Your task to perform on an android device: Open calendar and show me the third week of next month Image 0: 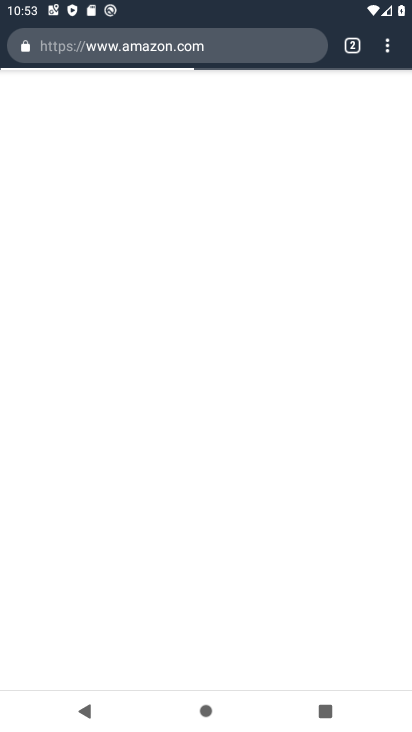
Step 0: press home button
Your task to perform on an android device: Open calendar and show me the third week of next month Image 1: 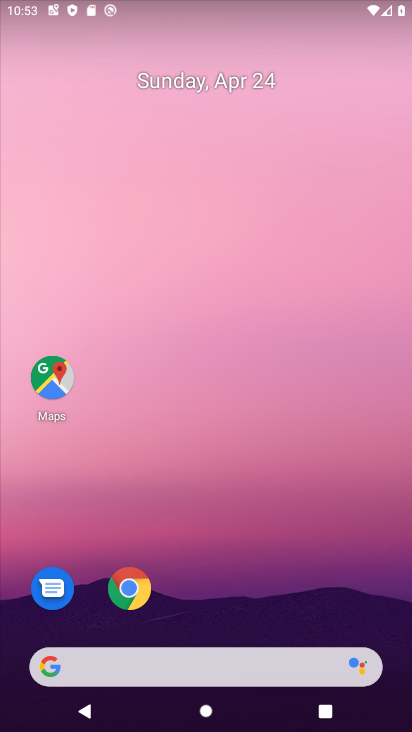
Step 1: drag from (297, 602) to (327, 80)
Your task to perform on an android device: Open calendar and show me the third week of next month Image 2: 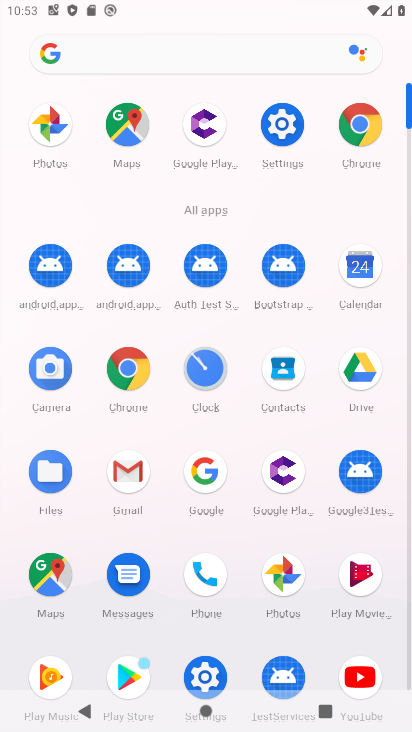
Step 2: click (365, 275)
Your task to perform on an android device: Open calendar and show me the third week of next month Image 3: 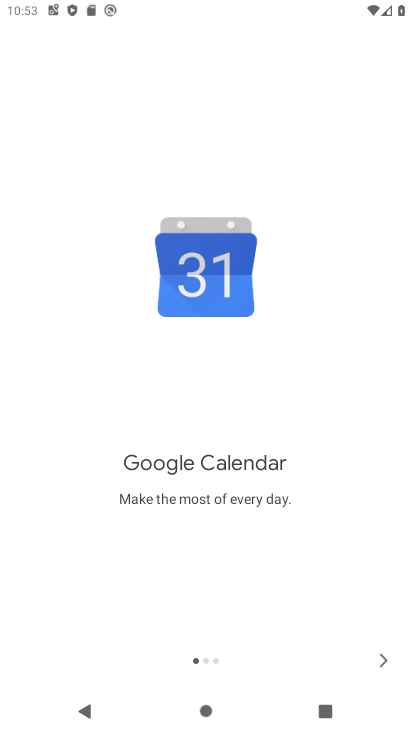
Step 3: click (388, 654)
Your task to perform on an android device: Open calendar and show me the third week of next month Image 4: 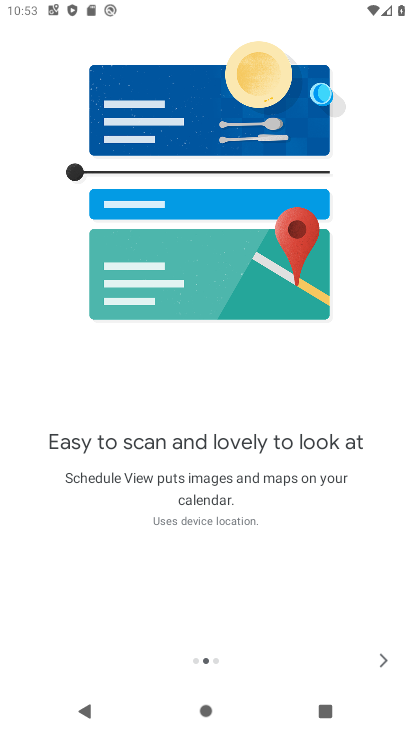
Step 4: click (388, 654)
Your task to perform on an android device: Open calendar and show me the third week of next month Image 5: 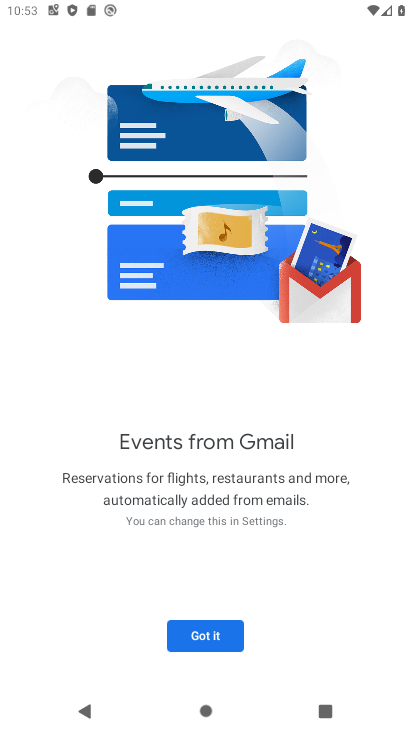
Step 5: click (208, 642)
Your task to perform on an android device: Open calendar and show me the third week of next month Image 6: 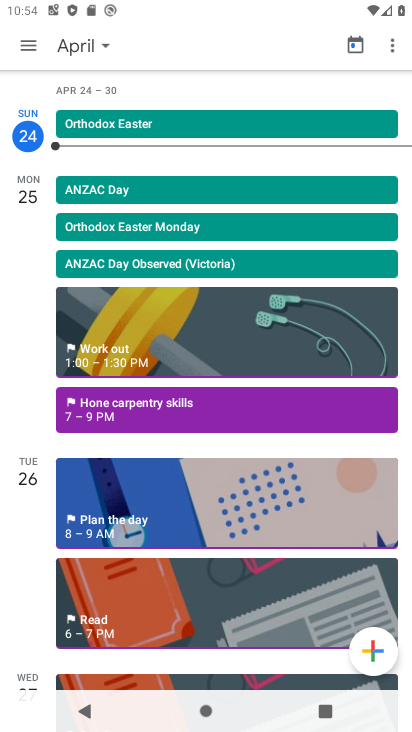
Step 6: click (90, 47)
Your task to perform on an android device: Open calendar and show me the third week of next month Image 7: 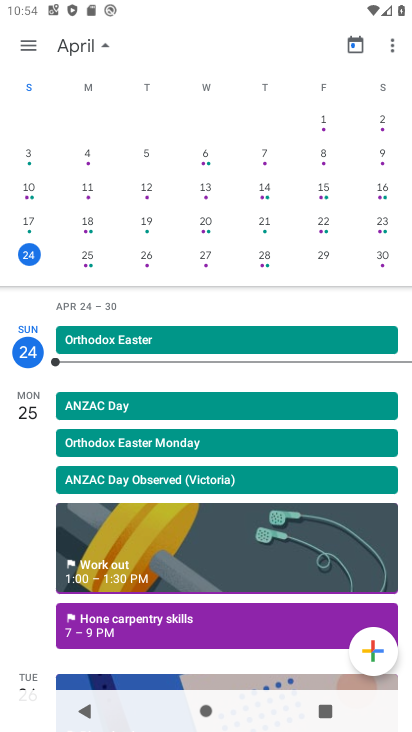
Step 7: click (92, 42)
Your task to perform on an android device: Open calendar and show me the third week of next month Image 8: 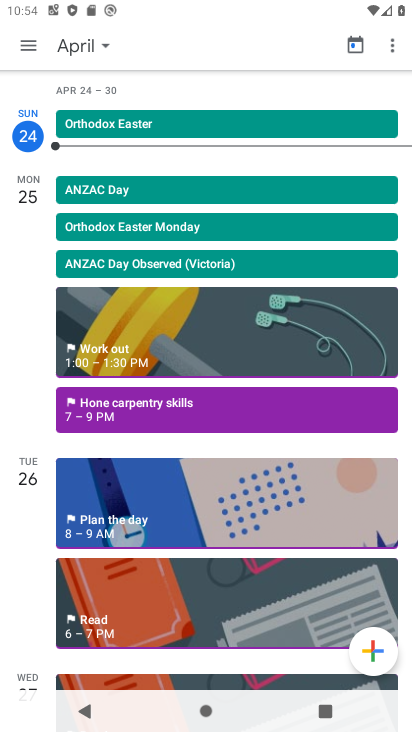
Step 8: click (101, 46)
Your task to perform on an android device: Open calendar and show me the third week of next month Image 9: 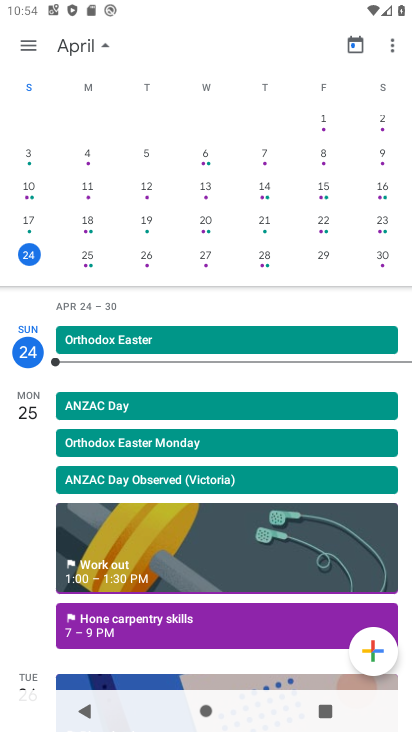
Step 9: drag from (338, 216) to (0, 171)
Your task to perform on an android device: Open calendar and show me the third week of next month Image 10: 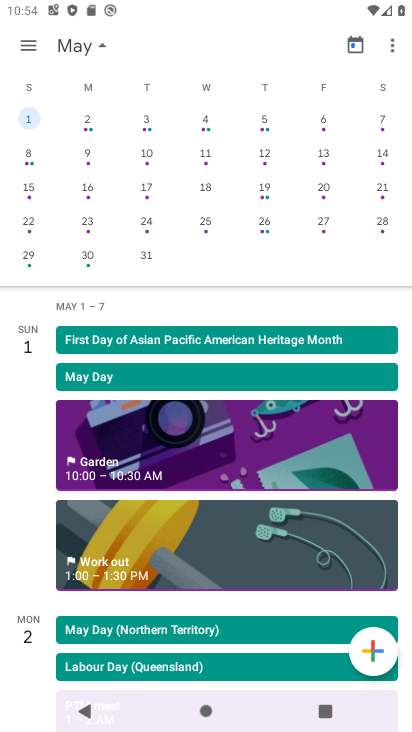
Step 10: click (98, 45)
Your task to perform on an android device: Open calendar and show me the third week of next month Image 11: 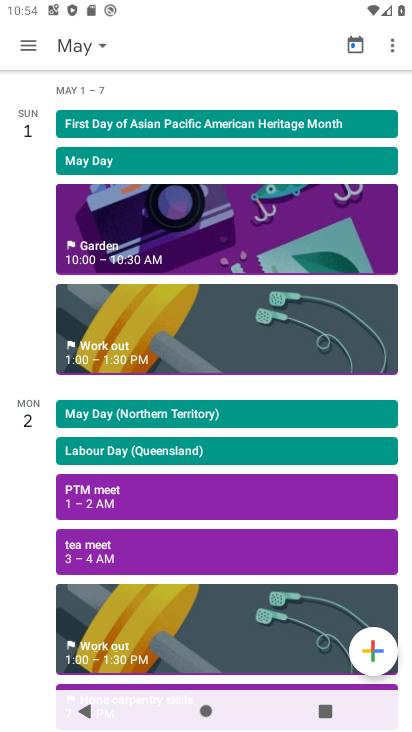
Step 11: click (83, 46)
Your task to perform on an android device: Open calendar and show me the third week of next month Image 12: 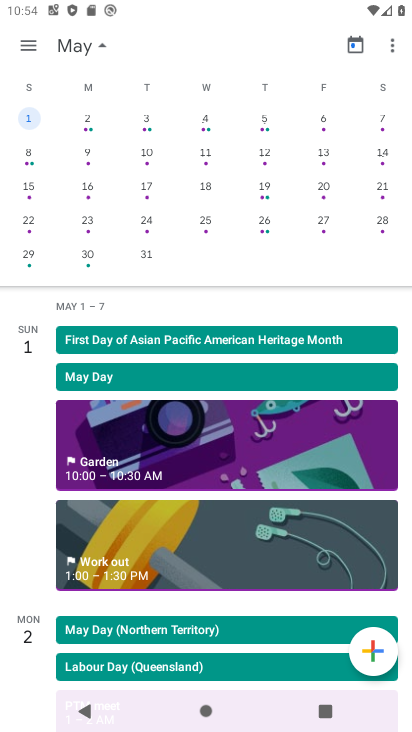
Step 12: click (17, 188)
Your task to perform on an android device: Open calendar and show me the third week of next month Image 13: 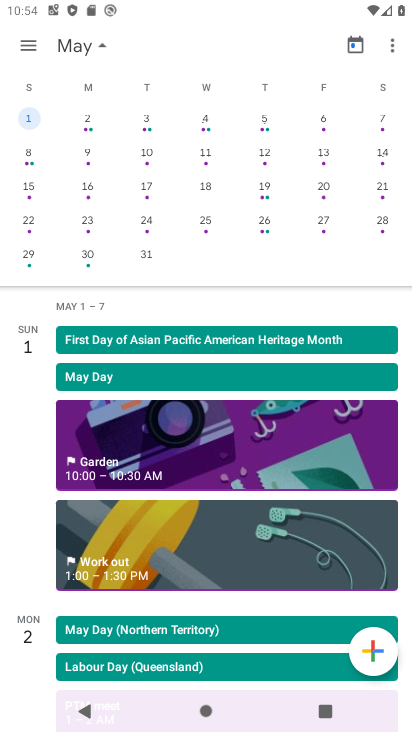
Step 13: click (34, 187)
Your task to perform on an android device: Open calendar and show me the third week of next month Image 14: 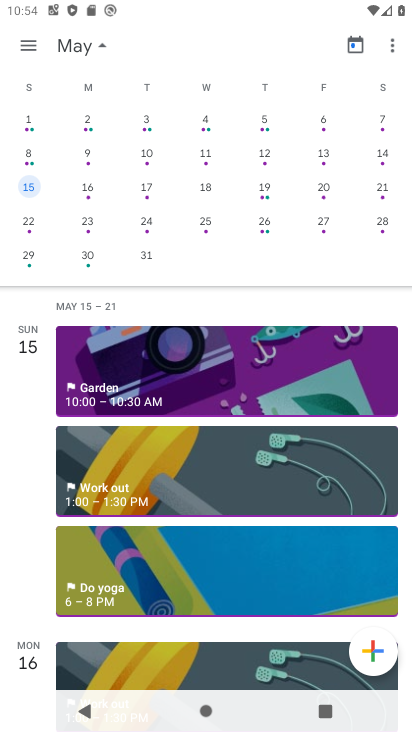
Step 14: click (35, 42)
Your task to perform on an android device: Open calendar and show me the third week of next month Image 15: 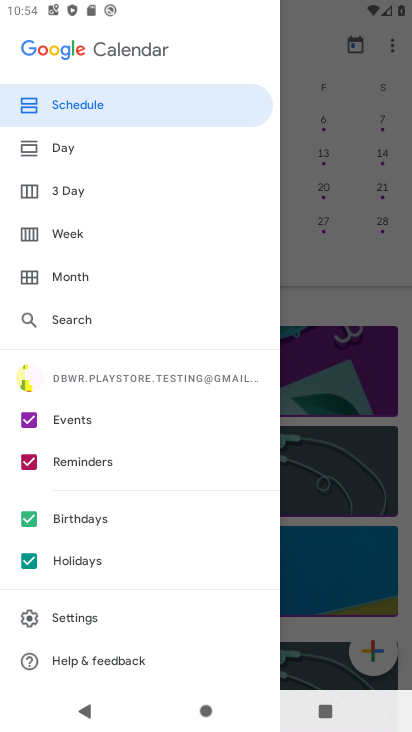
Step 15: click (75, 235)
Your task to perform on an android device: Open calendar and show me the third week of next month Image 16: 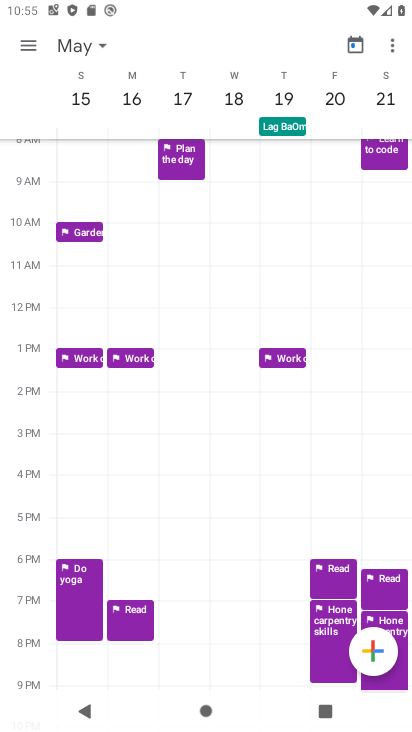
Step 16: task complete